Your task to perform on an android device: check google app version Image 0: 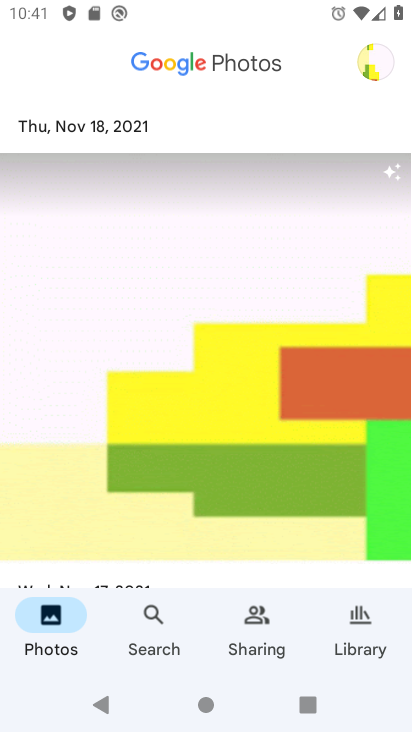
Step 0: press home button
Your task to perform on an android device: check google app version Image 1: 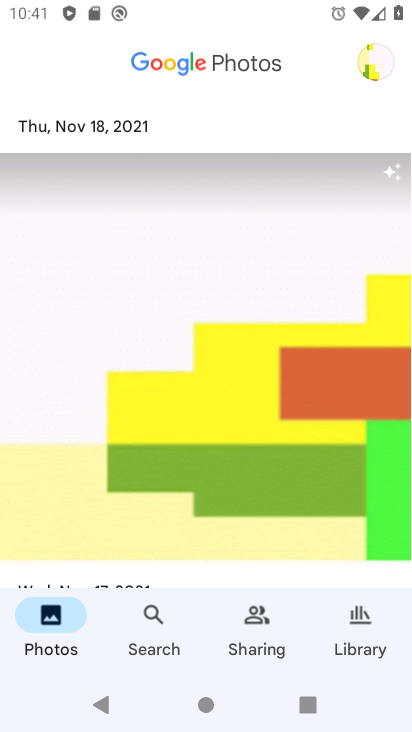
Step 1: press home button
Your task to perform on an android device: check google app version Image 2: 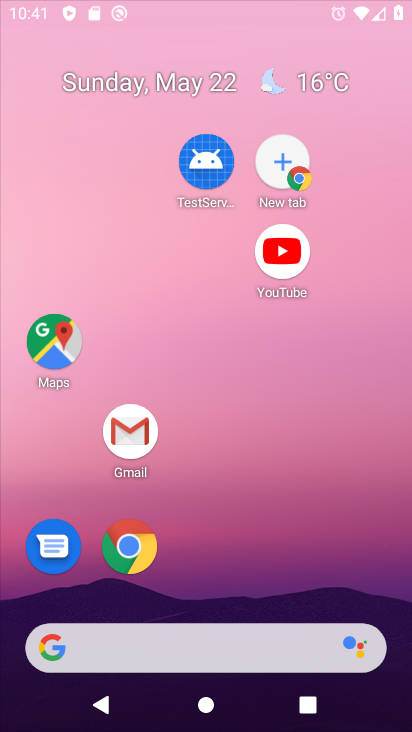
Step 2: press home button
Your task to perform on an android device: check google app version Image 3: 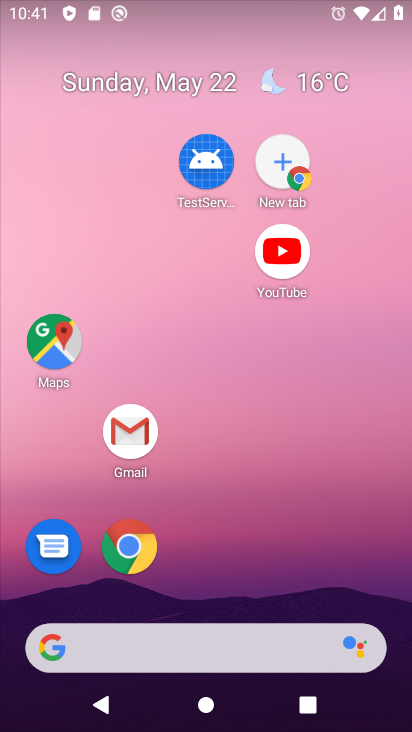
Step 3: drag from (272, 665) to (135, 78)
Your task to perform on an android device: check google app version Image 4: 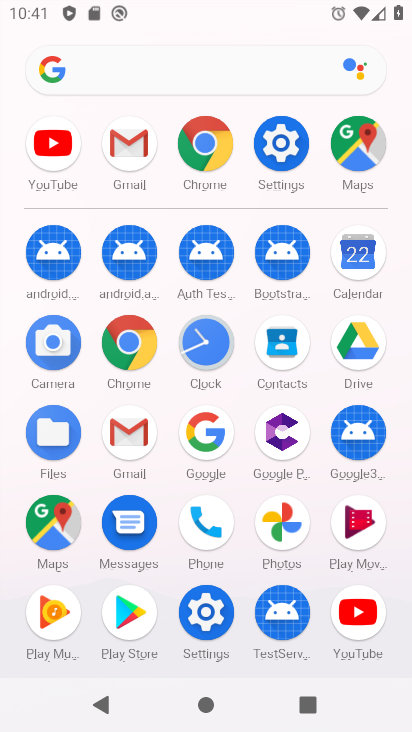
Step 4: click (200, 430)
Your task to perform on an android device: check google app version Image 5: 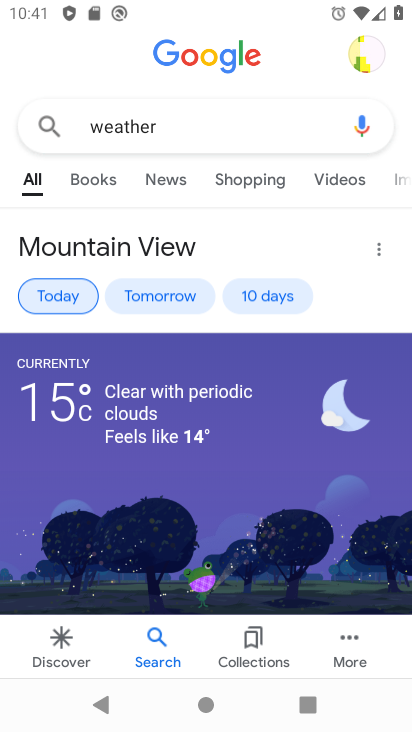
Step 5: click (347, 642)
Your task to perform on an android device: check google app version Image 6: 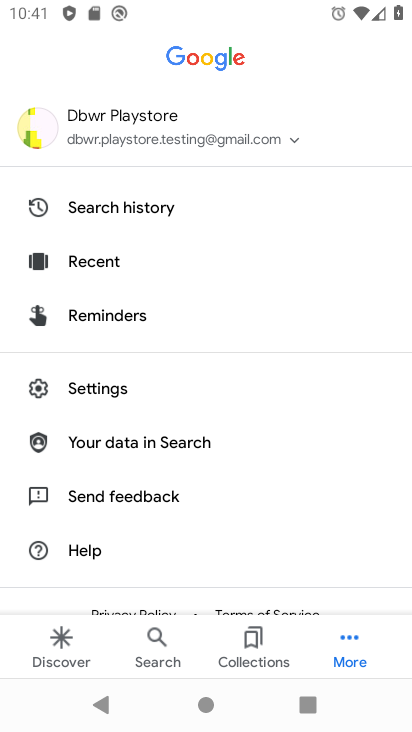
Step 6: click (94, 392)
Your task to perform on an android device: check google app version Image 7: 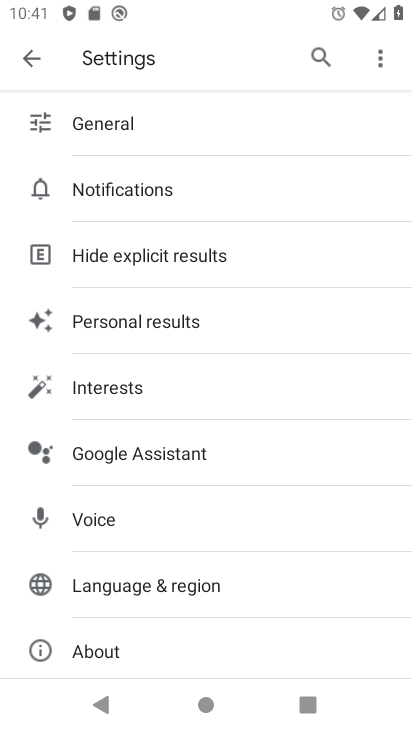
Step 7: drag from (120, 495) to (52, 125)
Your task to perform on an android device: check google app version Image 8: 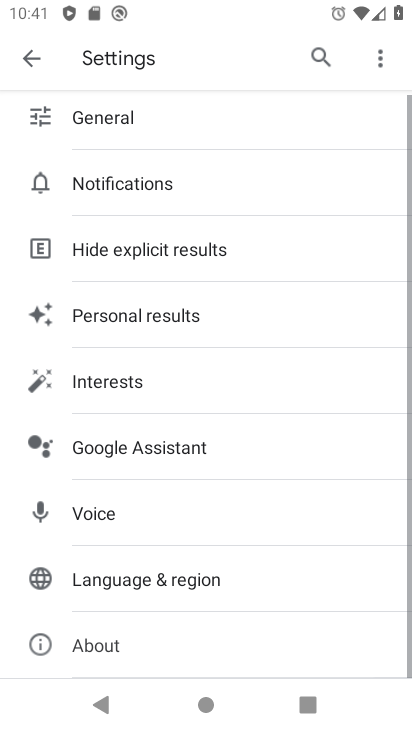
Step 8: drag from (146, 395) to (113, 130)
Your task to perform on an android device: check google app version Image 9: 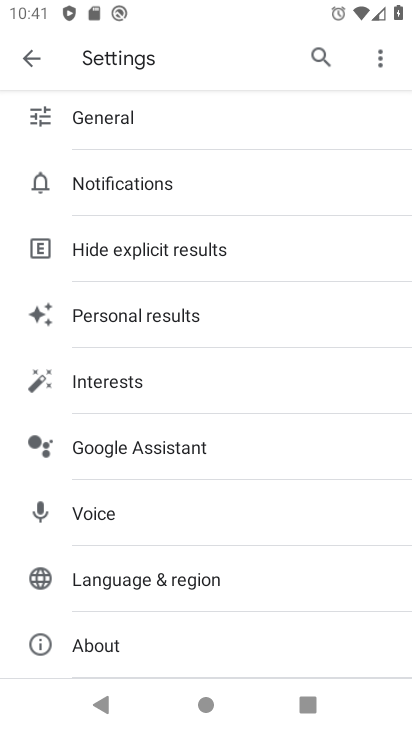
Step 9: click (100, 651)
Your task to perform on an android device: check google app version Image 10: 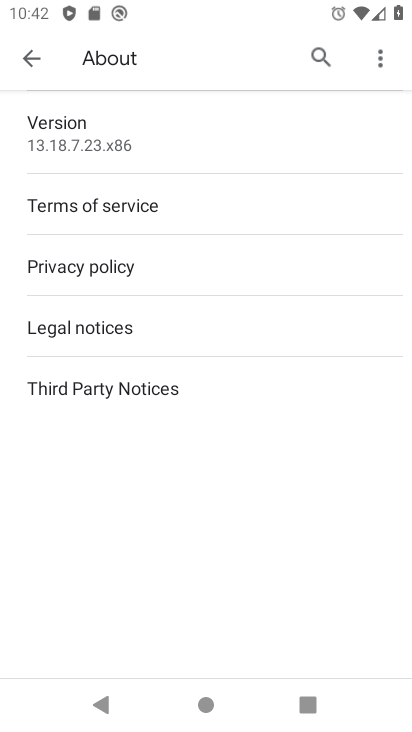
Step 10: click (63, 138)
Your task to perform on an android device: check google app version Image 11: 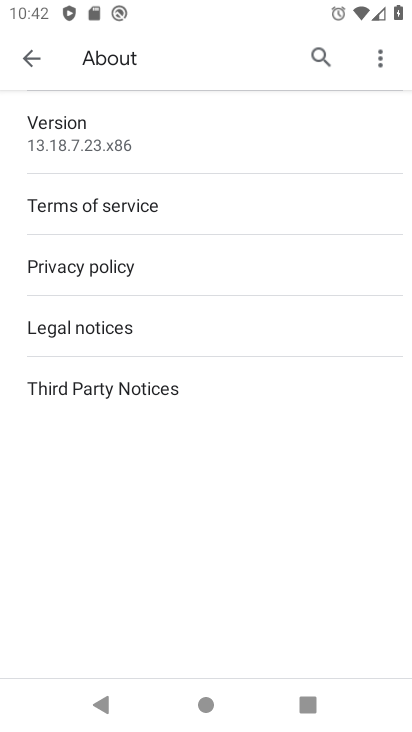
Step 11: task complete